Your task to perform on an android device: open the mobile data screen to see how much data has been used Image 0: 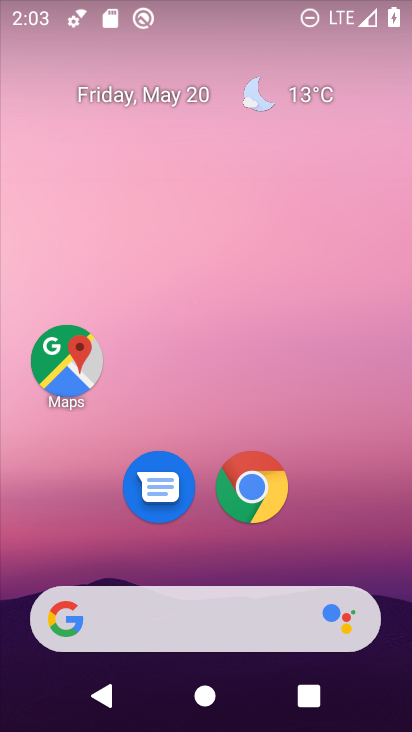
Step 0: drag from (220, 549) to (256, 216)
Your task to perform on an android device: open the mobile data screen to see how much data has been used Image 1: 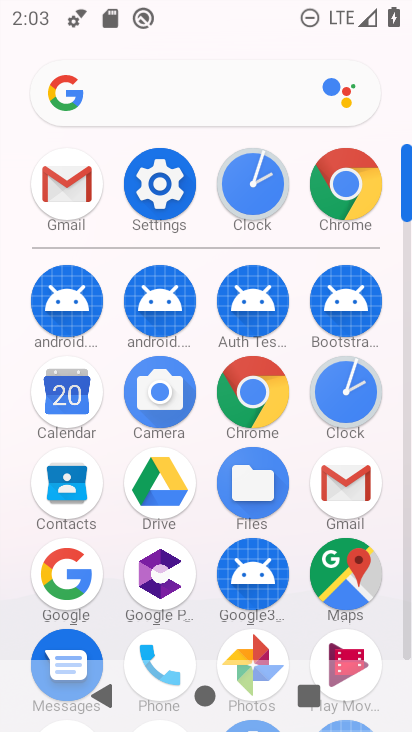
Step 1: click (153, 171)
Your task to perform on an android device: open the mobile data screen to see how much data has been used Image 2: 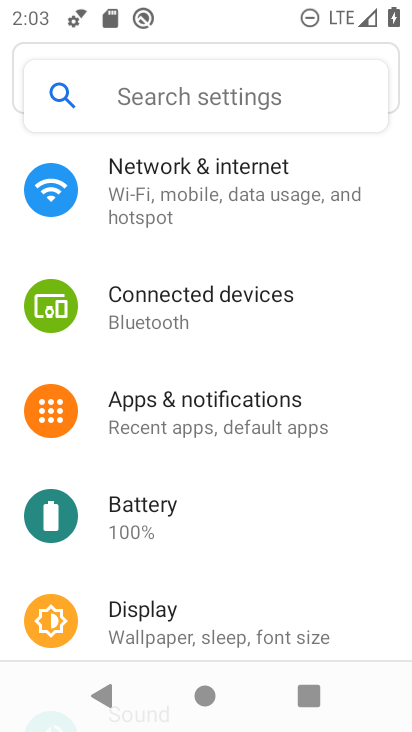
Step 2: click (173, 193)
Your task to perform on an android device: open the mobile data screen to see how much data has been used Image 3: 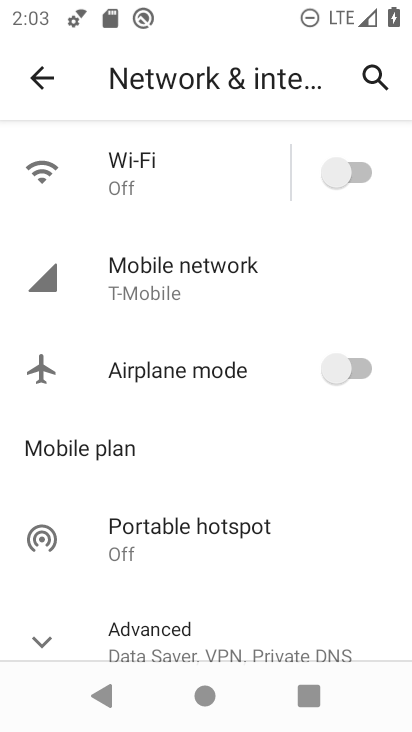
Step 3: click (200, 277)
Your task to perform on an android device: open the mobile data screen to see how much data has been used Image 4: 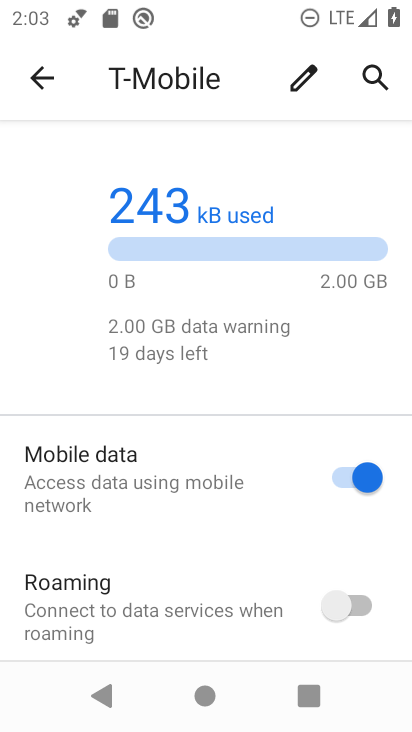
Step 4: drag from (203, 567) to (199, 207)
Your task to perform on an android device: open the mobile data screen to see how much data has been used Image 5: 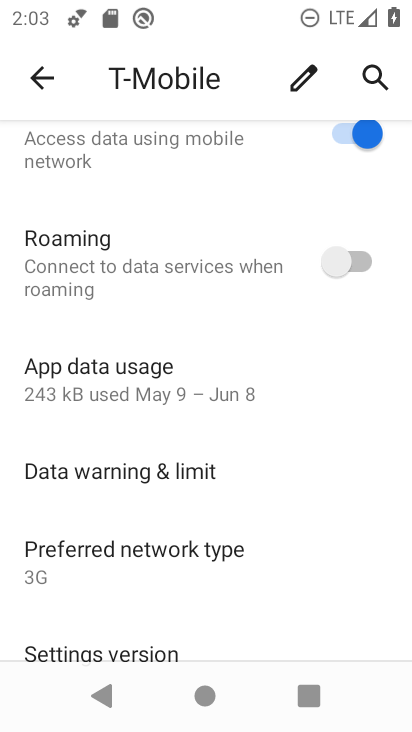
Step 5: click (200, 375)
Your task to perform on an android device: open the mobile data screen to see how much data has been used Image 6: 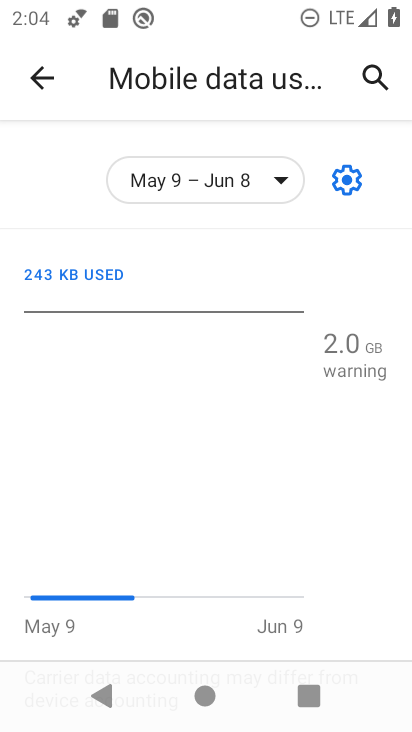
Step 6: task complete